Your task to perform on an android device: Go to network settings Image 0: 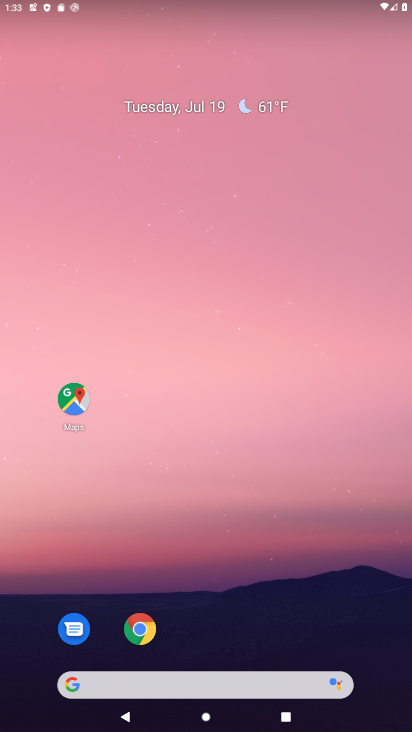
Step 0: drag from (165, 681) to (191, 217)
Your task to perform on an android device: Go to network settings Image 1: 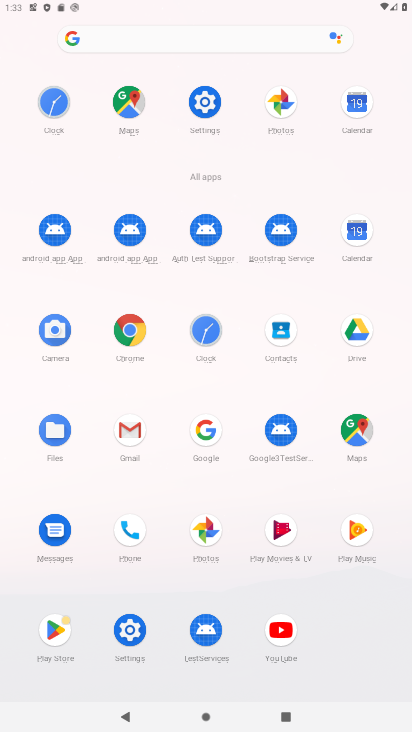
Step 1: click (211, 109)
Your task to perform on an android device: Go to network settings Image 2: 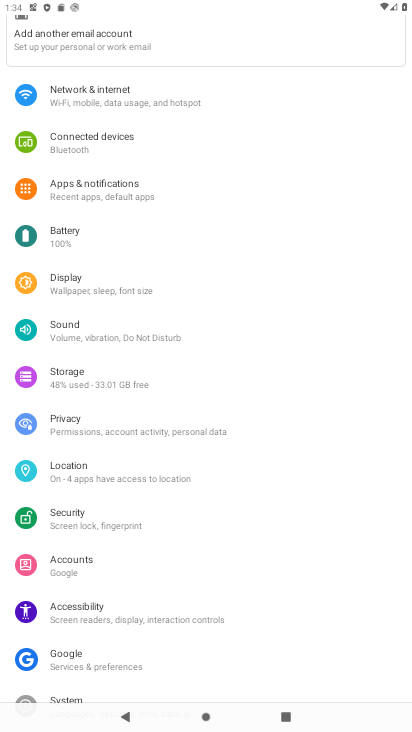
Step 2: click (71, 91)
Your task to perform on an android device: Go to network settings Image 3: 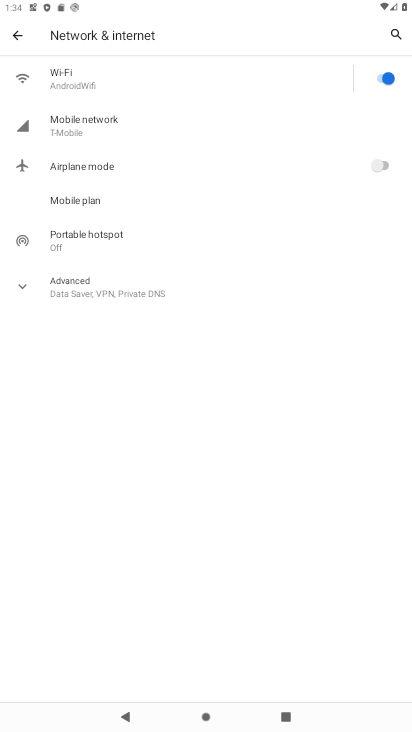
Step 3: task complete